Your task to perform on an android device: Show me productivity apps on the Play Store Image 0: 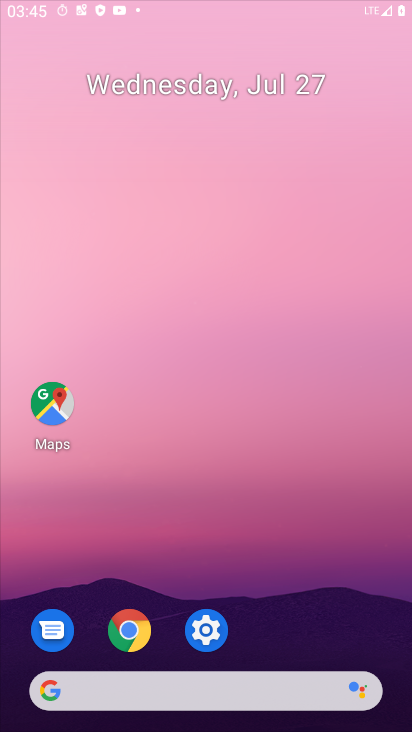
Step 0: click (339, 109)
Your task to perform on an android device: Show me productivity apps on the Play Store Image 1: 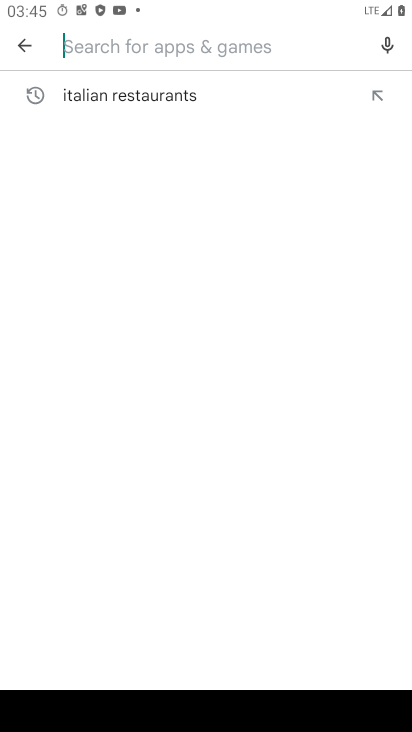
Step 1: click (18, 31)
Your task to perform on an android device: Show me productivity apps on the Play Store Image 2: 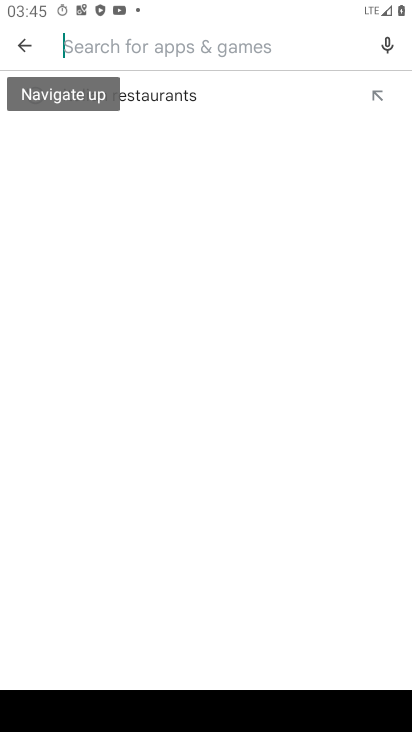
Step 2: click (22, 30)
Your task to perform on an android device: Show me productivity apps on the Play Store Image 3: 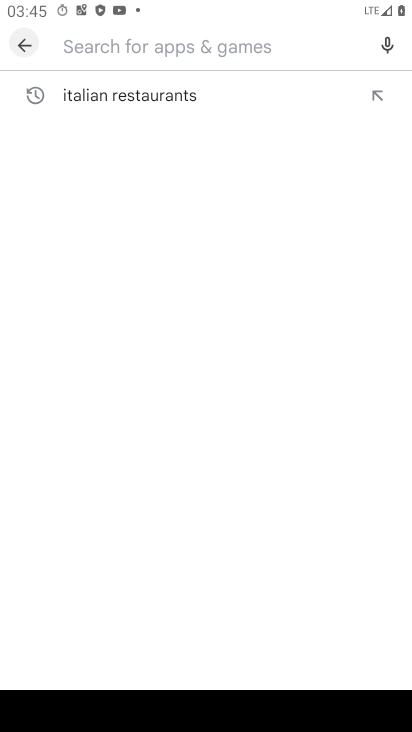
Step 3: click (22, 32)
Your task to perform on an android device: Show me productivity apps on the Play Store Image 4: 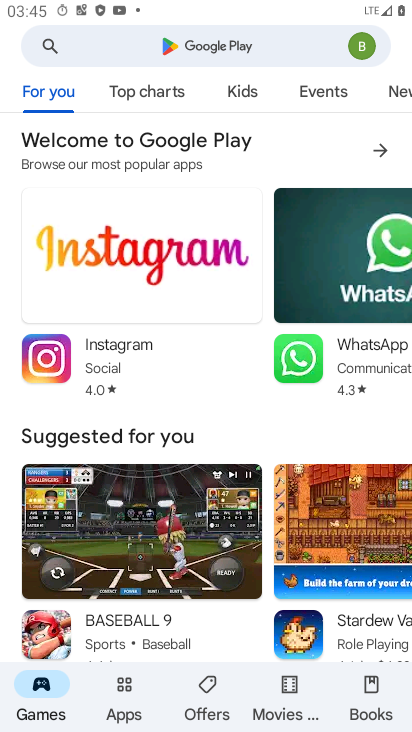
Step 4: click (240, 60)
Your task to perform on an android device: Show me productivity apps on the Play Store Image 5: 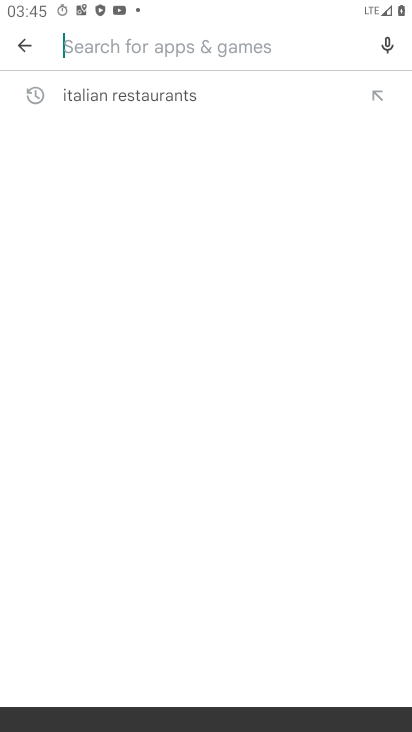
Step 5: click (244, 57)
Your task to perform on an android device: Show me productivity apps on the Play Store Image 6: 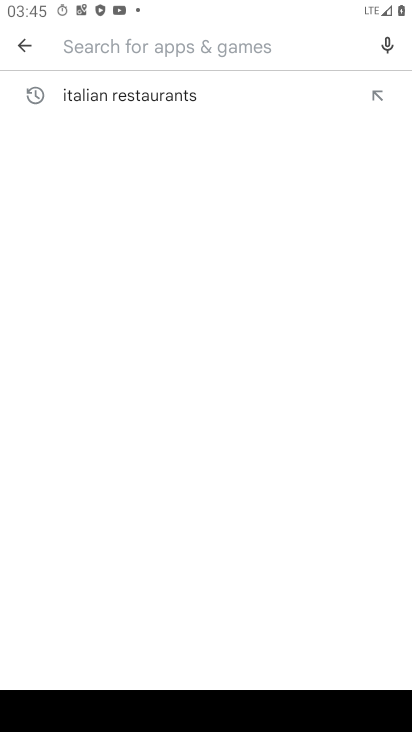
Step 6: type "productivity apps"
Your task to perform on an android device: Show me productivity apps on the Play Store Image 7: 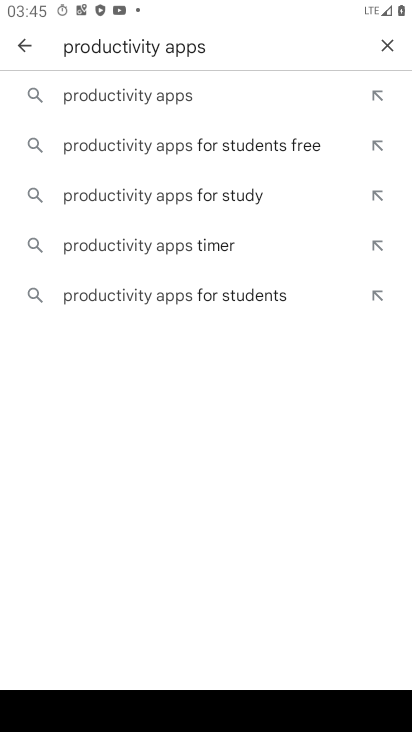
Step 7: click (121, 93)
Your task to perform on an android device: Show me productivity apps on the Play Store Image 8: 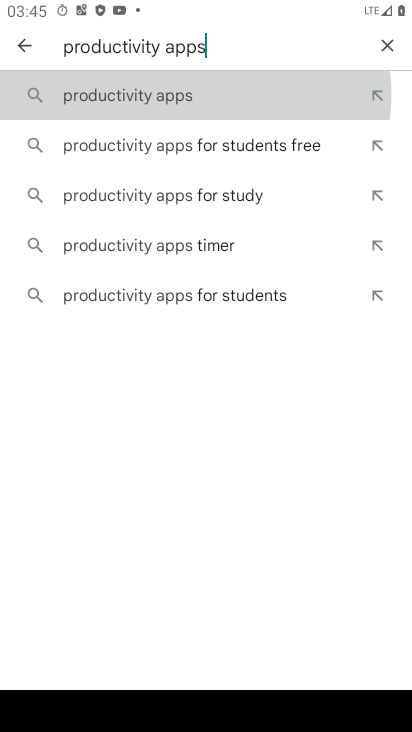
Step 8: click (117, 96)
Your task to perform on an android device: Show me productivity apps on the Play Store Image 9: 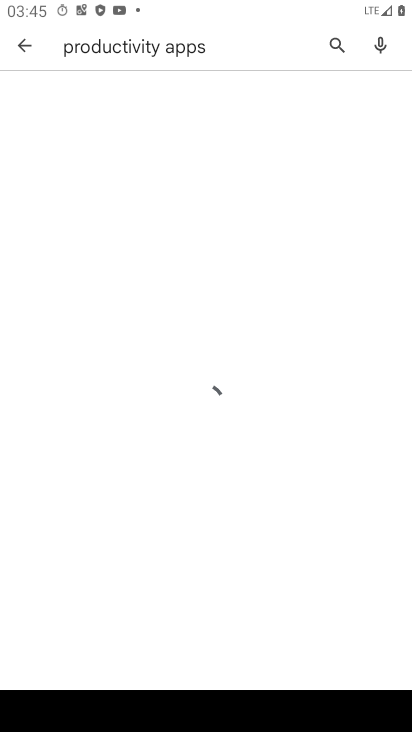
Step 9: click (117, 96)
Your task to perform on an android device: Show me productivity apps on the Play Store Image 10: 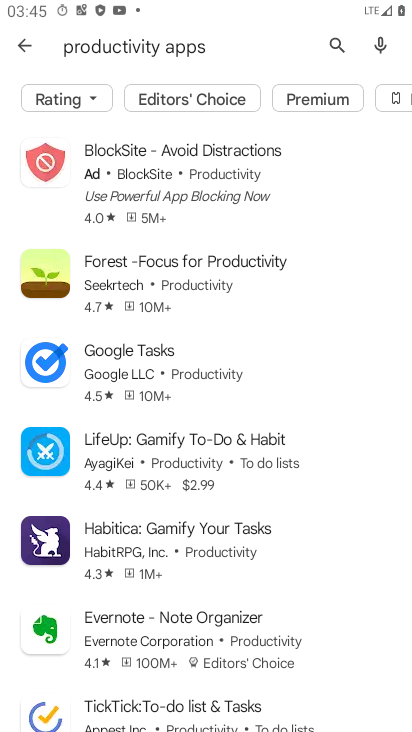
Step 10: task complete